Your task to perform on an android device: Open settings on Google Maps Image 0: 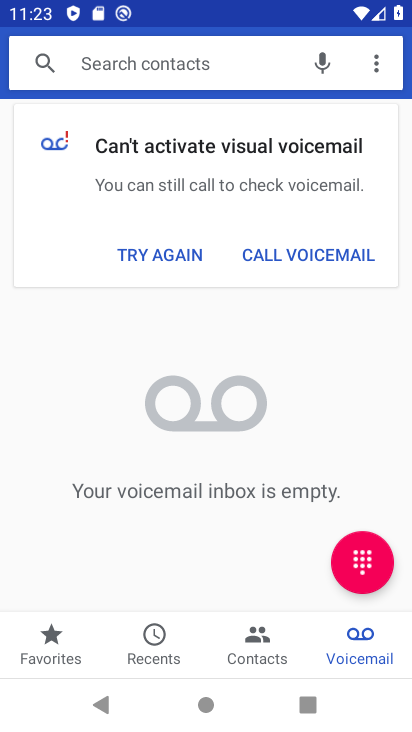
Step 0: press home button
Your task to perform on an android device: Open settings on Google Maps Image 1: 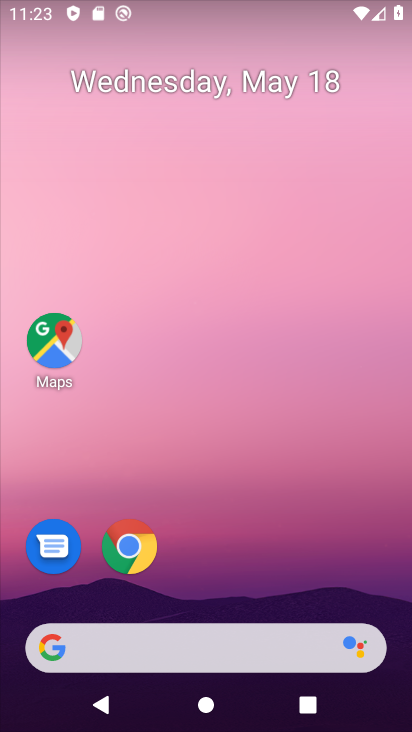
Step 1: click (55, 342)
Your task to perform on an android device: Open settings on Google Maps Image 2: 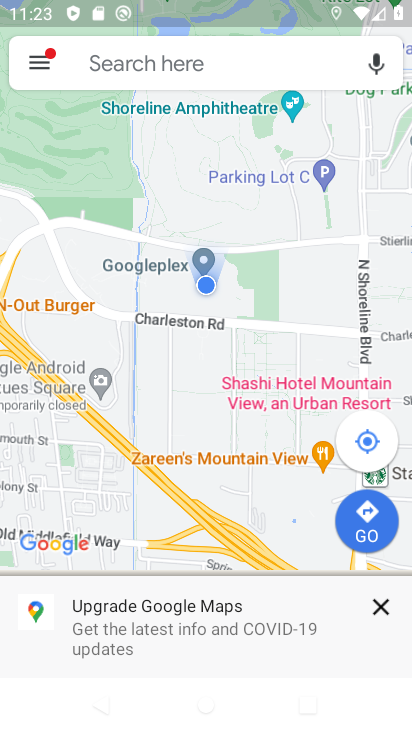
Step 2: task complete